Your task to perform on an android device: turn off javascript in the chrome app Image 0: 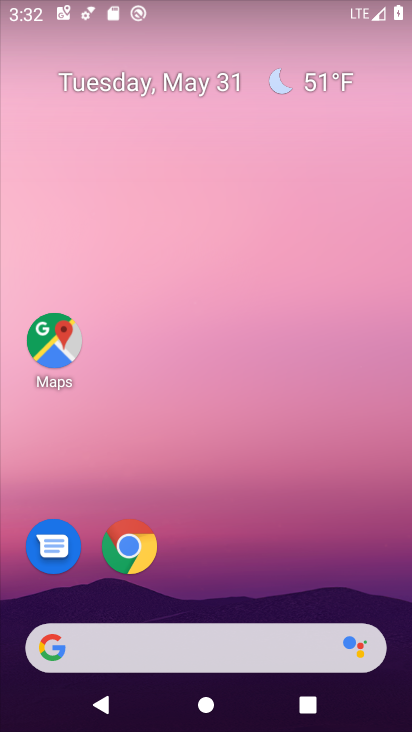
Step 0: click (121, 546)
Your task to perform on an android device: turn off javascript in the chrome app Image 1: 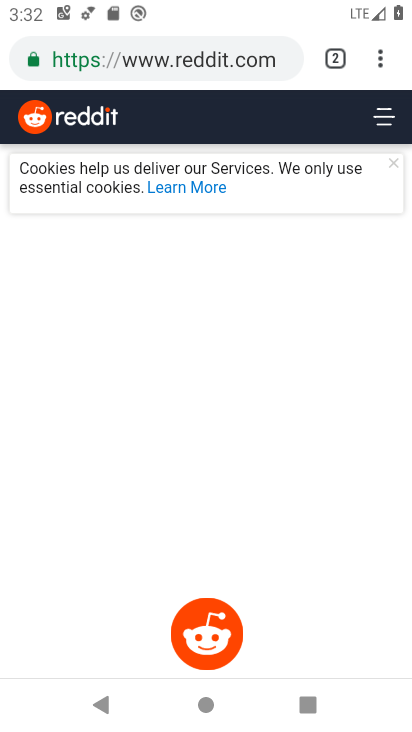
Step 1: click (381, 55)
Your task to perform on an android device: turn off javascript in the chrome app Image 2: 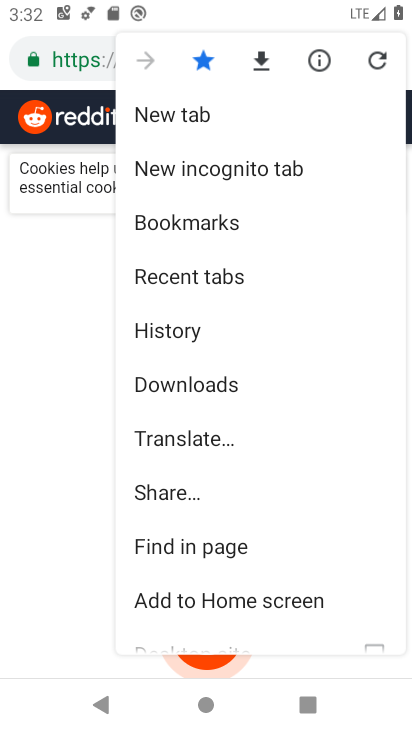
Step 2: drag from (285, 506) to (254, 115)
Your task to perform on an android device: turn off javascript in the chrome app Image 3: 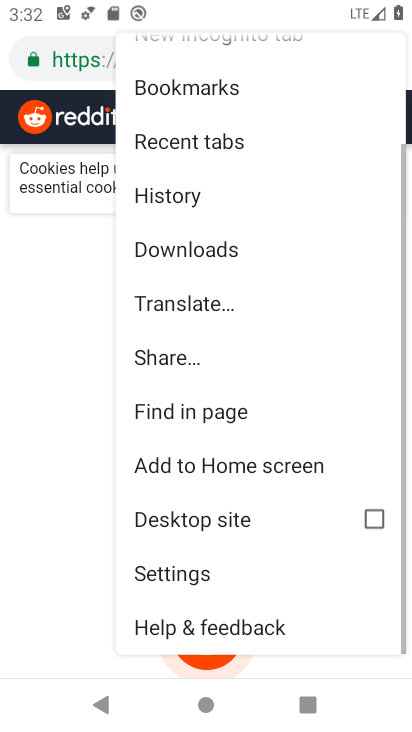
Step 3: click (242, 574)
Your task to perform on an android device: turn off javascript in the chrome app Image 4: 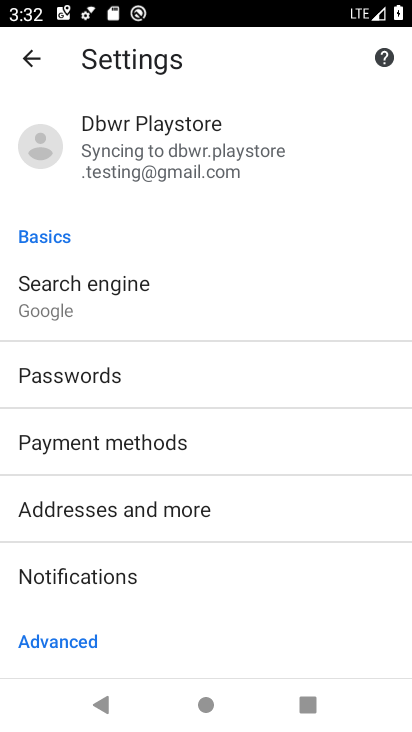
Step 4: drag from (167, 540) to (205, 18)
Your task to perform on an android device: turn off javascript in the chrome app Image 5: 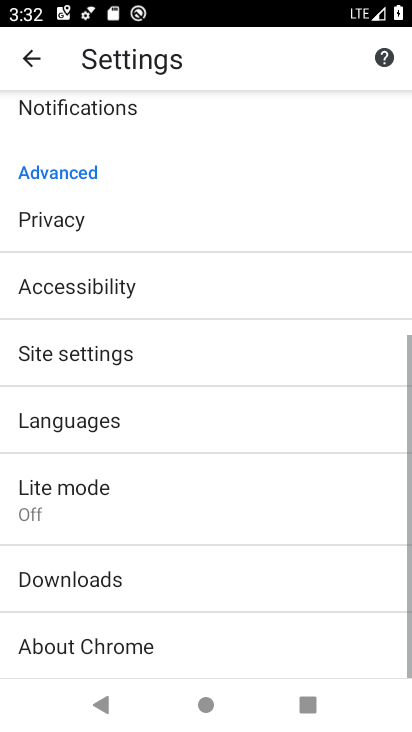
Step 5: drag from (239, 552) to (205, 94)
Your task to perform on an android device: turn off javascript in the chrome app Image 6: 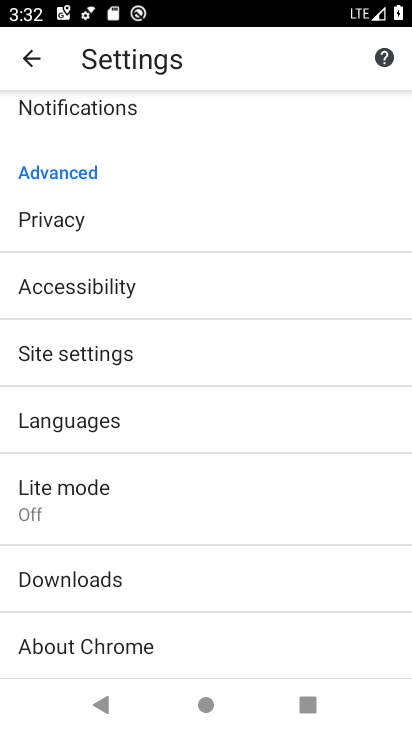
Step 6: drag from (238, 583) to (232, 292)
Your task to perform on an android device: turn off javascript in the chrome app Image 7: 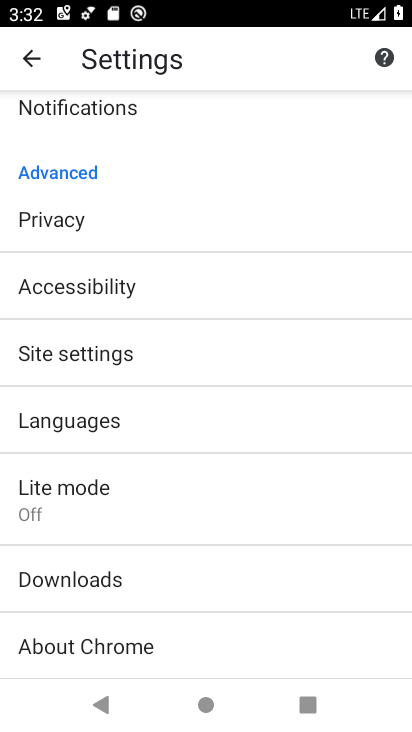
Step 7: click (185, 346)
Your task to perform on an android device: turn off javascript in the chrome app Image 8: 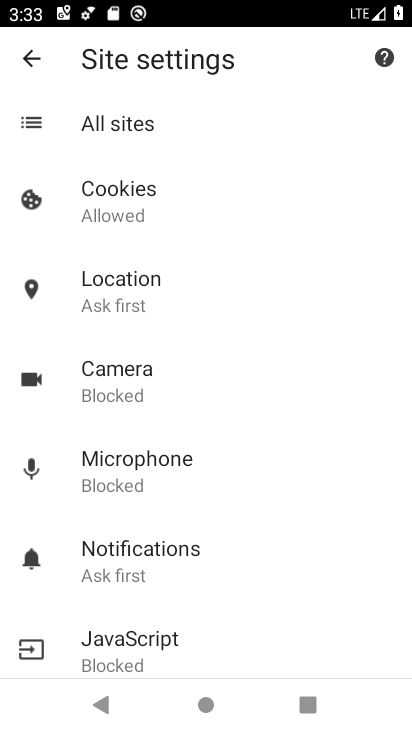
Step 8: click (190, 623)
Your task to perform on an android device: turn off javascript in the chrome app Image 9: 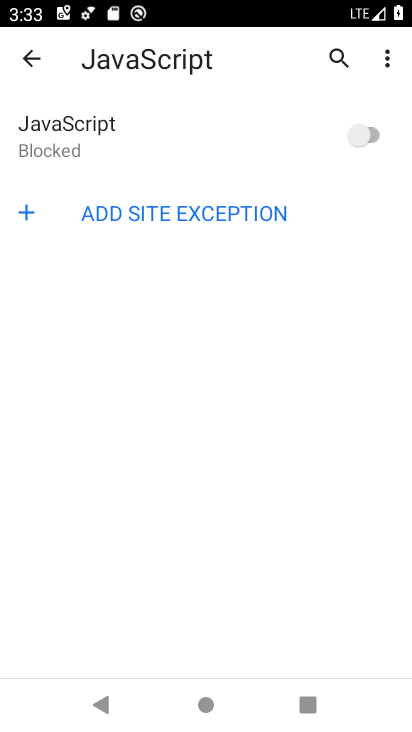
Step 9: task complete